Your task to perform on an android device: turn on wifi Image 0: 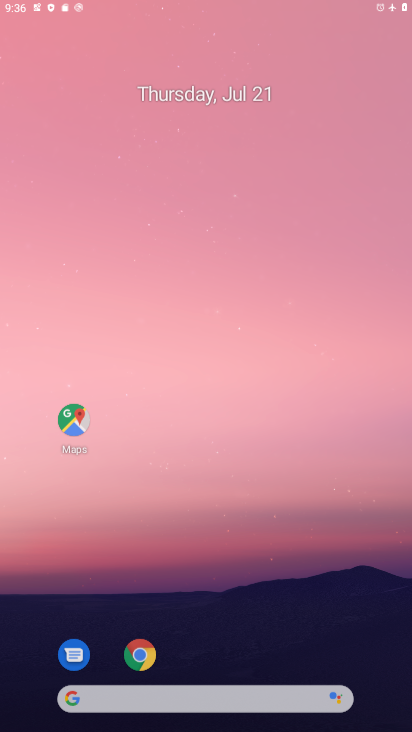
Step 0: press home button
Your task to perform on an android device: turn on wifi Image 1: 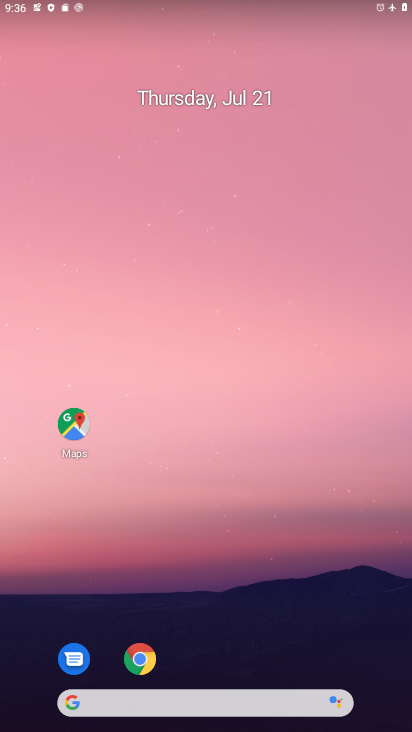
Step 1: drag from (201, 675) to (204, 16)
Your task to perform on an android device: turn on wifi Image 2: 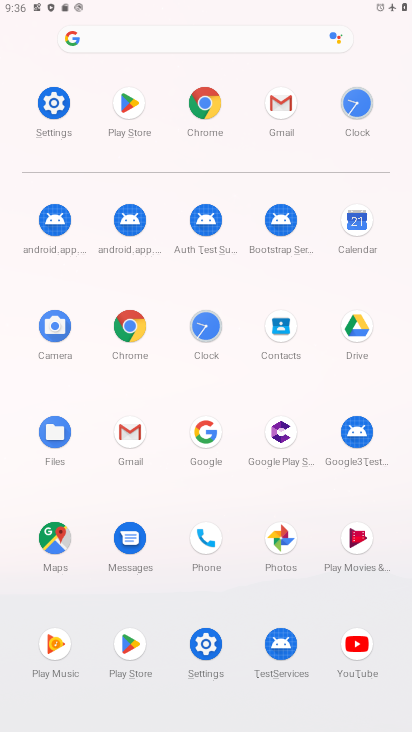
Step 2: click (55, 107)
Your task to perform on an android device: turn on wifi Image 3: 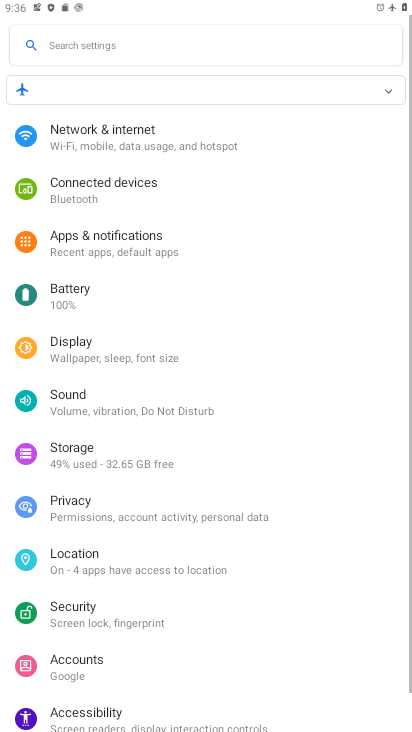
Step 3: click (93, 138)
Your task to perform on an android device: turn on wifi Image 4: 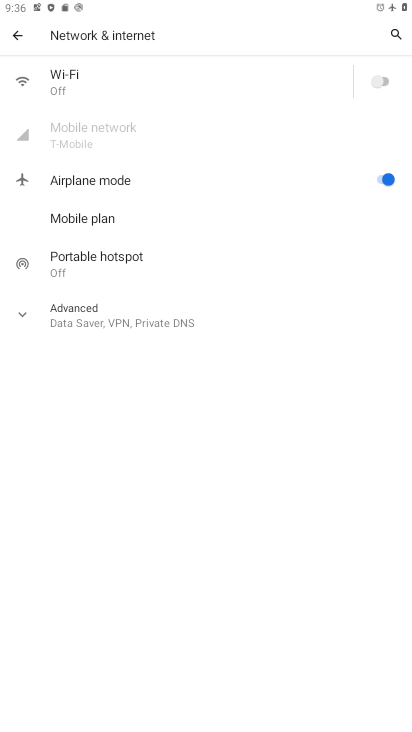
Step 4: click (105, 81)
Your task to perform on an android device: turn on wifi Image 5: 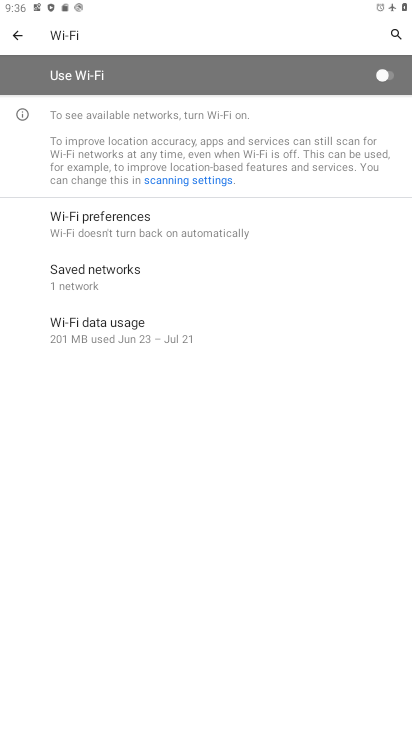
Step 5: click (369, 80)
Your task to perform on an android device: turn on wifi Image 6: 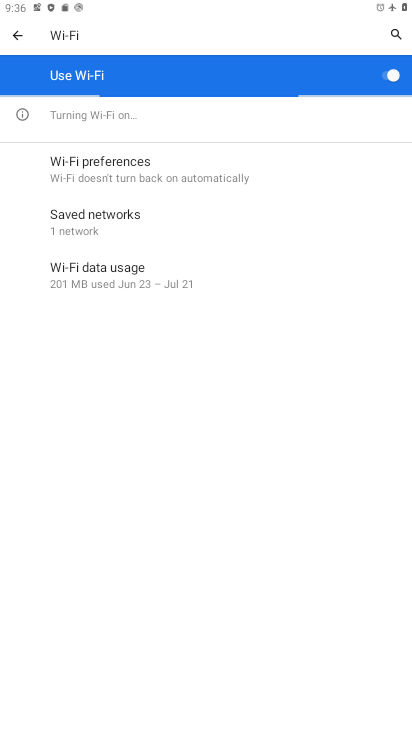
Step 6: task complete